Your task to perform on an android device: Is it going to rain this weekend? Image 0: 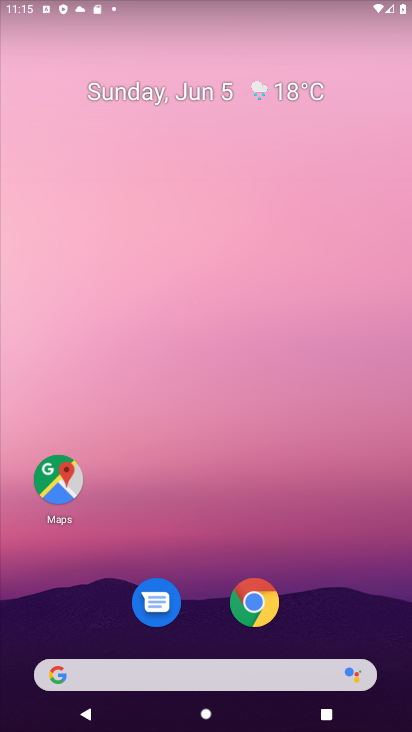
Step 0: drag from (355, 627) to (296, 81)
Your task to perform on an android device: Is it going to rain this weekend? Image 1: 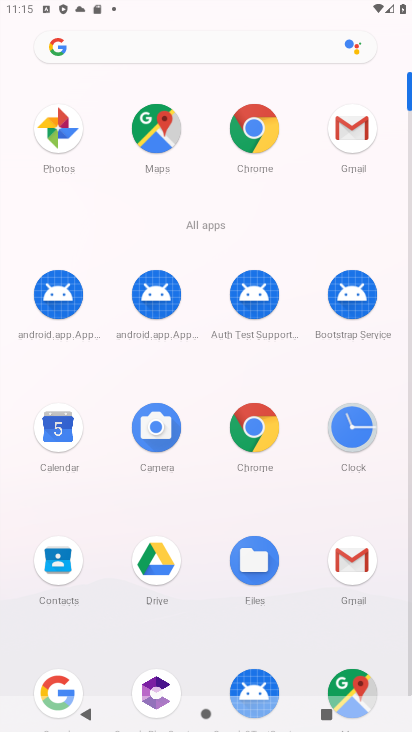
Step 1: click (54, 554)
Your task to perform on an android device: Is it going to rain this weekend? Image 2: 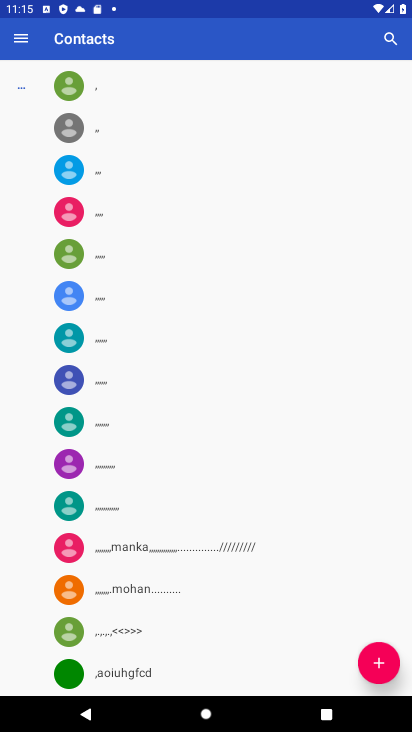
Step 2: task complete